Your task to perform on an android device: Go to settings Image 0: 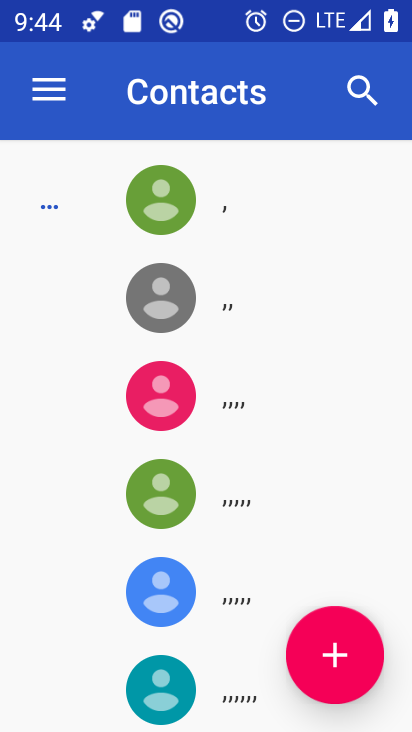
Step 0: press home button
Your task to perform on an android device: Go to settings Image 1: 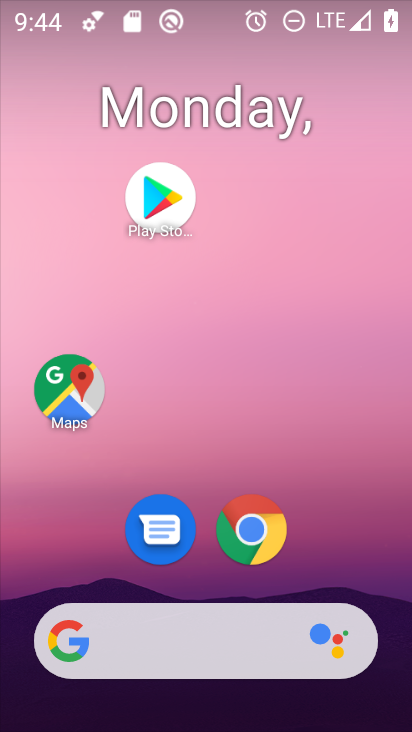
Step 1: drag from (348, 441) to (216, 16)
Your task to perform on an android device: Go to settings Image 2: 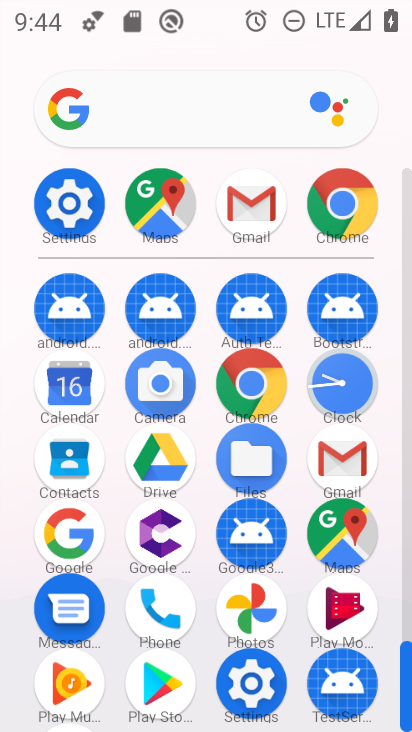
Step 2: click (63, 201)
Your task to perform on an android device: Go to settings Image 3: 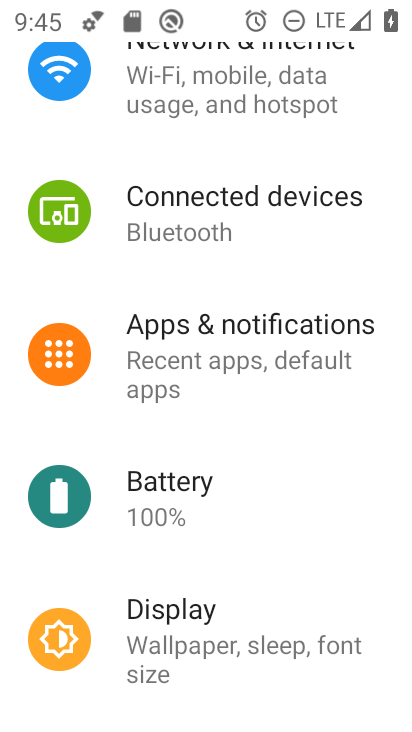
Step 3: task complete